Your task to perform on an android device: change the upload size in google photos Image 0: 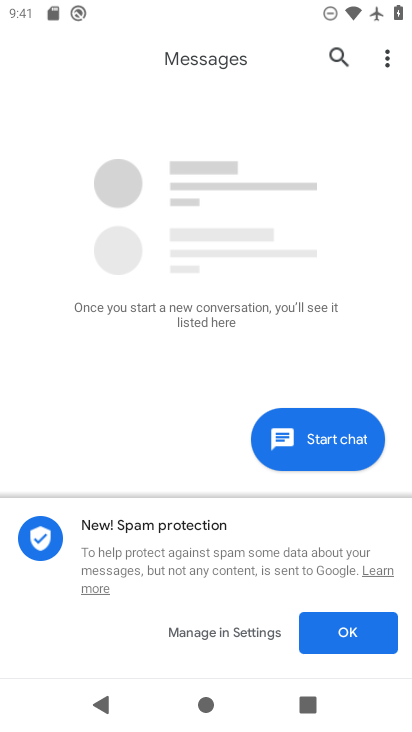
Step 0: press home button
Your task to perform on an android device: change the upload size in google photos Image 1: 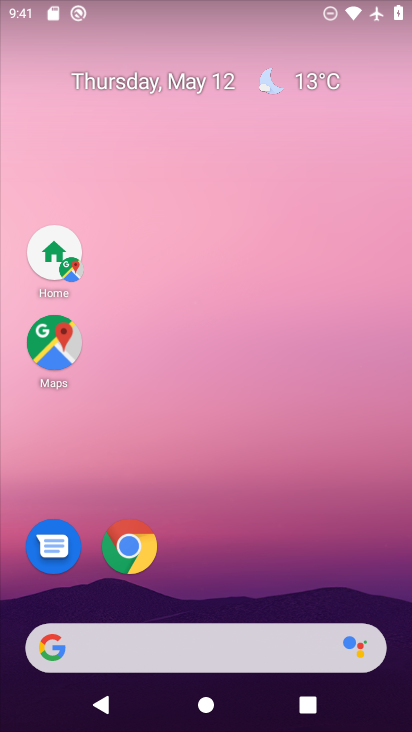
Step 1: drag from (143, 653) to (297, 73)
Your task to perform on an android device: change the upload size in google photos Image 2: 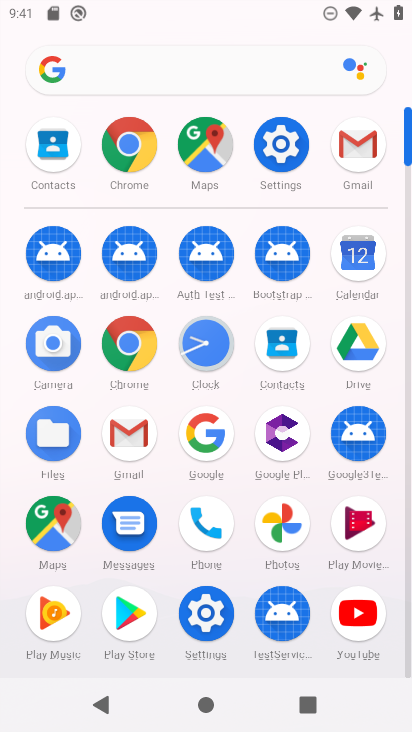
Step 2: click (278, 529)
Your task to perform on an android device: change the upload size in google photos Image 3: 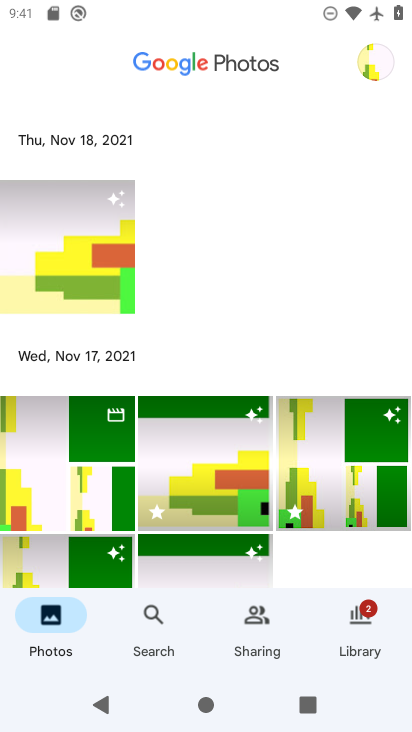
Step 3: click (375, 71)
Your task to perform on an android device: change the upload size in google photos Image 4: 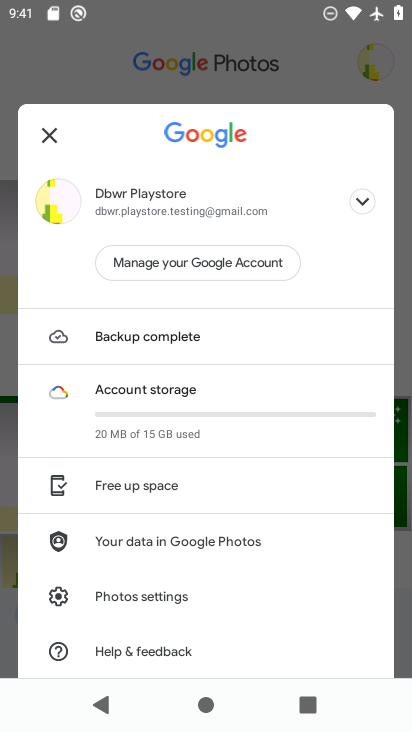
Step 4: click (167, 598)
Your task to perform on an android device: change the upload size in google photos Image 5: 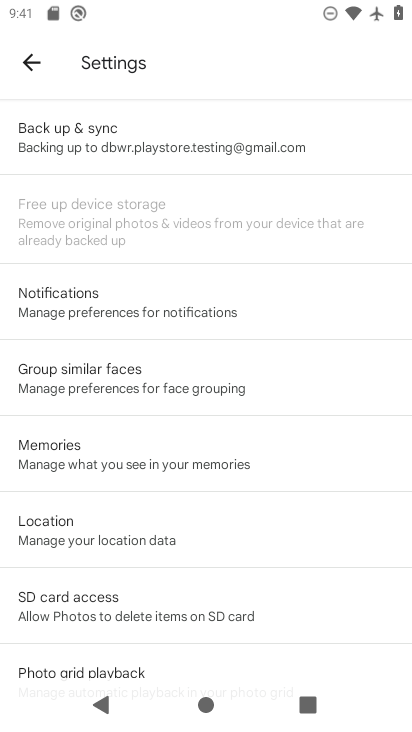
Step 5: click (212, 159)
Your task to perform on an android device: change the upload size in google photos Image 6: 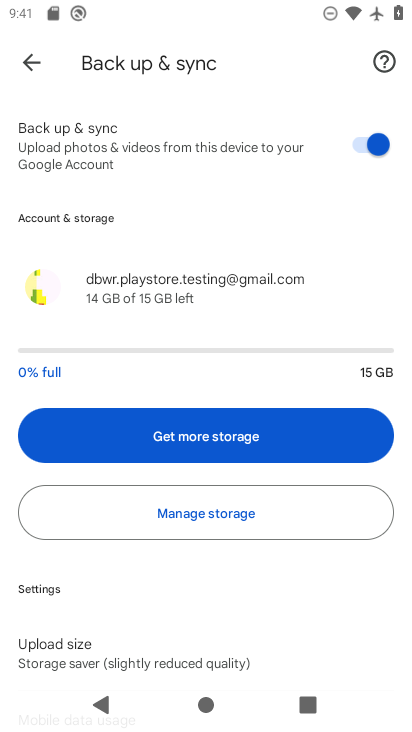
Step 6: drag from (139, 606) to (266, 291)
Your task to perform on an android device: change the upload size in google photos Image 7: 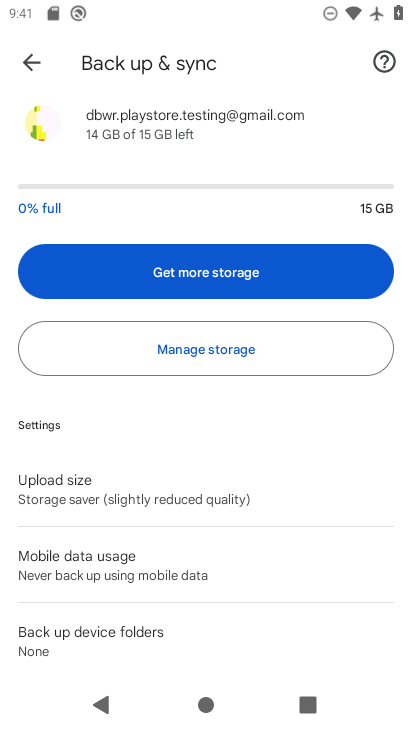
Step 7: click (86, 483)
Your task to perform on an android device: change the upload size in google photos Image 8: 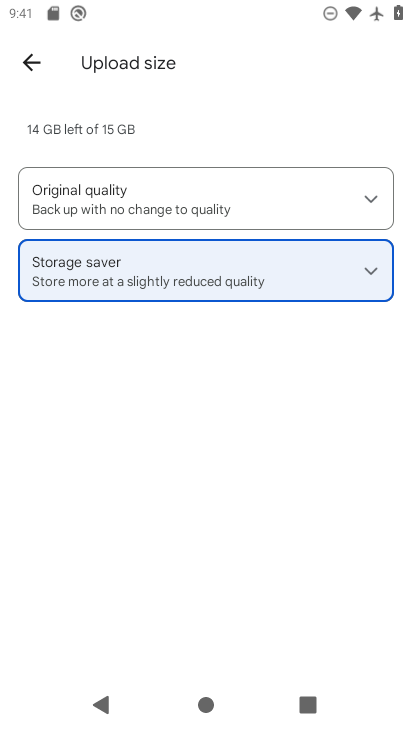
Step 8: click (367, 196)
Your task to perform on an android device: change the upload size in google photos Image 9: 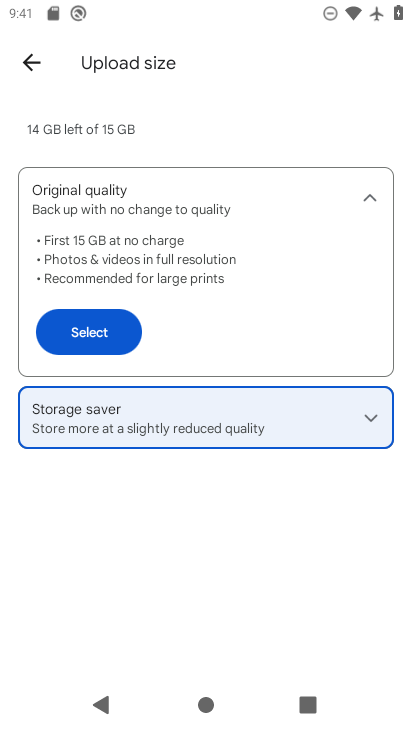
Step 9: click (94, 331)
Your task to perform on an android device: change the upload size in google photos Image 10: 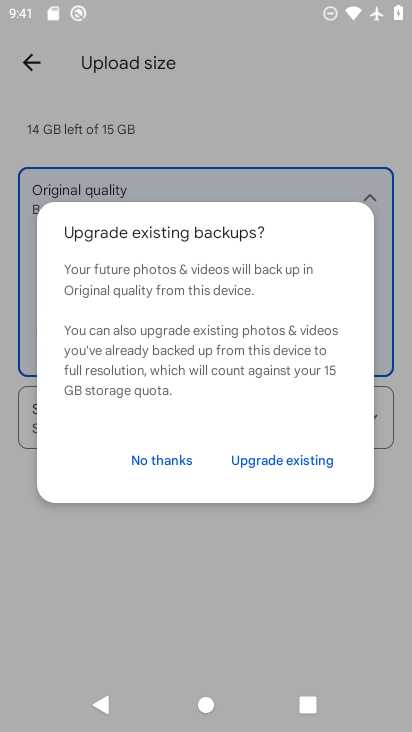
Step 10: click (290, 463)
Your task to perform on an android device: change the upload size in google photos Image 11: 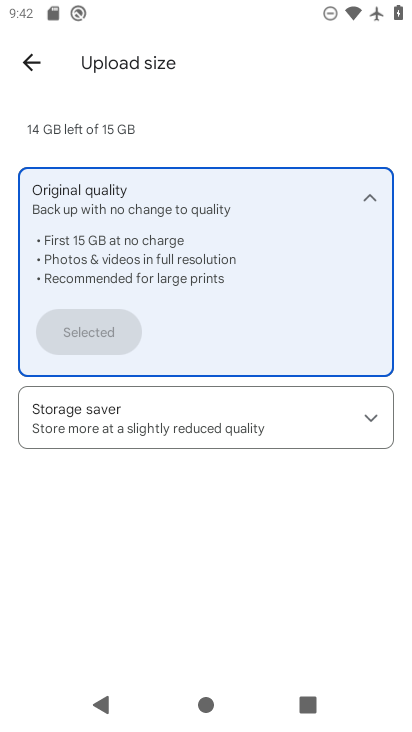
Step 11: task complete